Your task to perform on an android device: star an email in the gmail app Image 0: 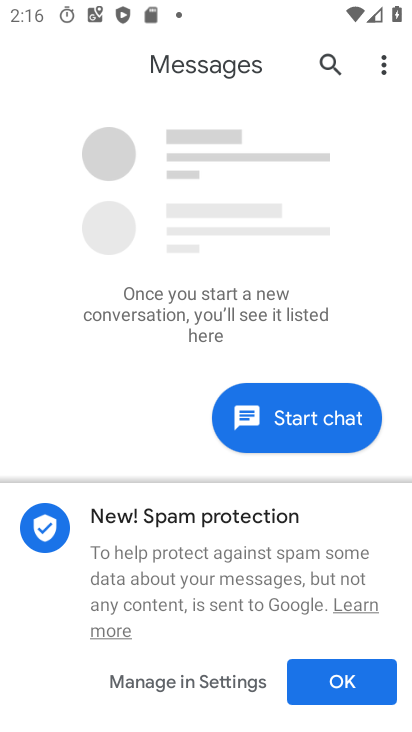
Step 0: press home button
Your task to perform on an android device: star an email in the gmail app Image 1: 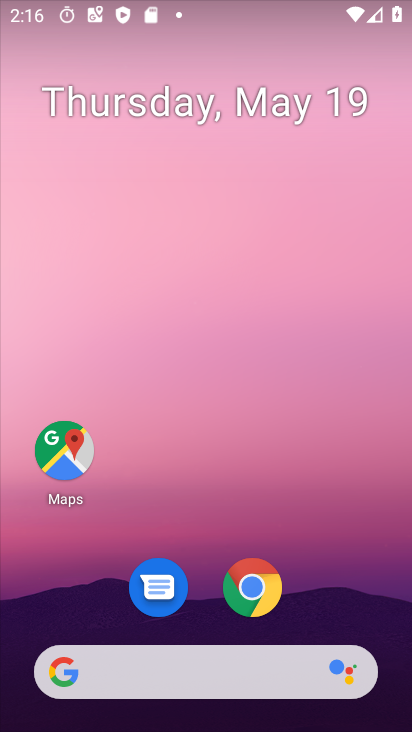
Step 1: drag from (195, 727) to (199, 126)
Your task to perform on an android device: star an email in the gmail app Image 2: 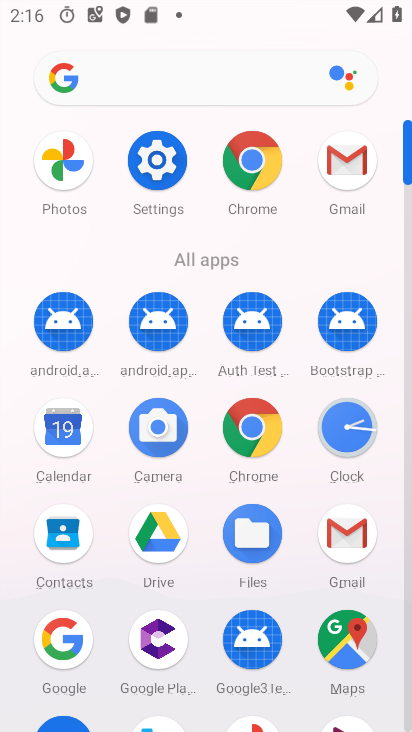
Step 2: click (355, 539)
Your task to perform on an android device: star an email in the gmail app Image 3: 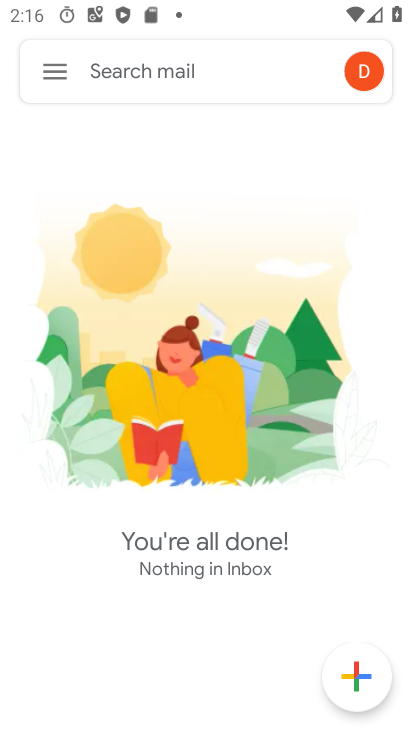
Step 3: press home button
Your task to perform on an android device: star an email in the gmail app Image 4: 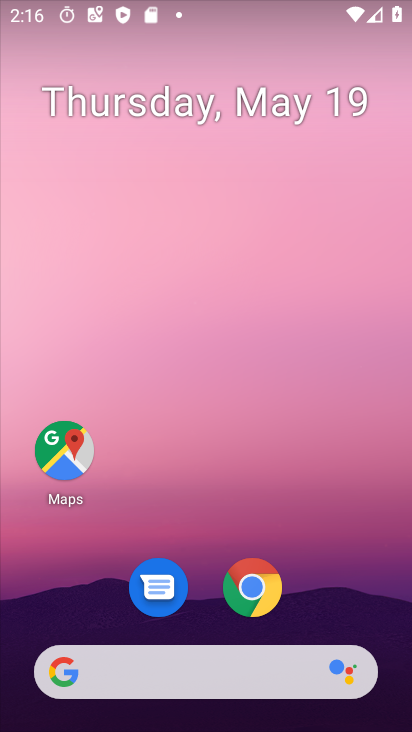
Step 4: drag from (206, 720) to (208, 90)
Your task to perform on an android device: star an email in the gmail app Image 5: 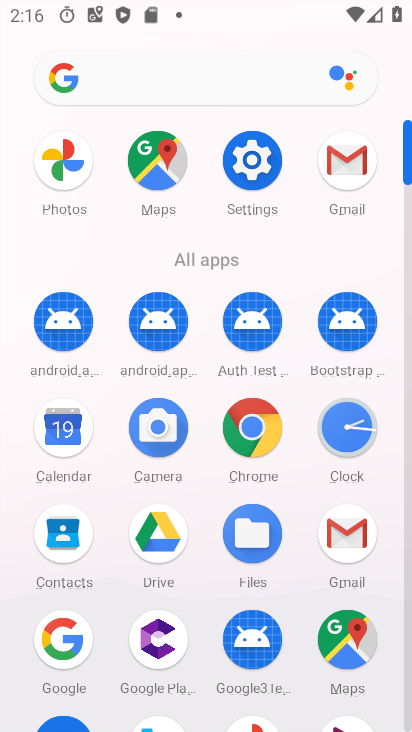
Step 5: click (341, 527)
Your task to perform on an android device: star an email in the gmail app Image 6: 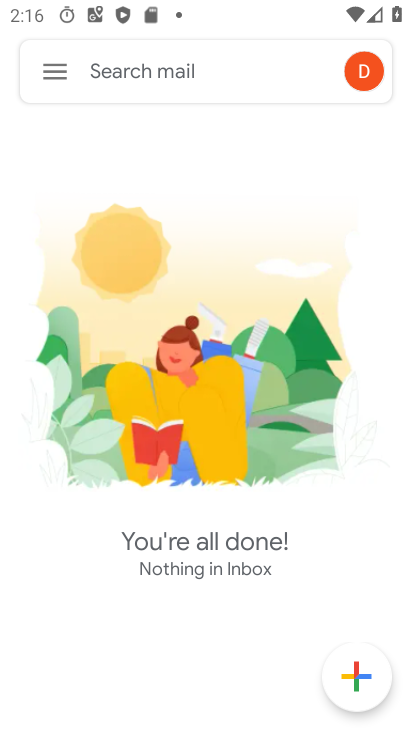
Step 6: click (56, 75)
Your task to perform on an android device: star an email in the gmail app Image 7: 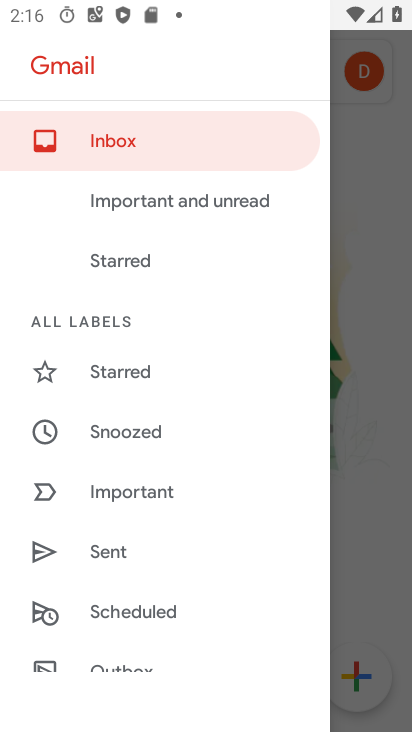
Step 7: drag from (151, 638) to (183, 424)
Your task to perform on an android device: star an email in the gmail app Image 8: 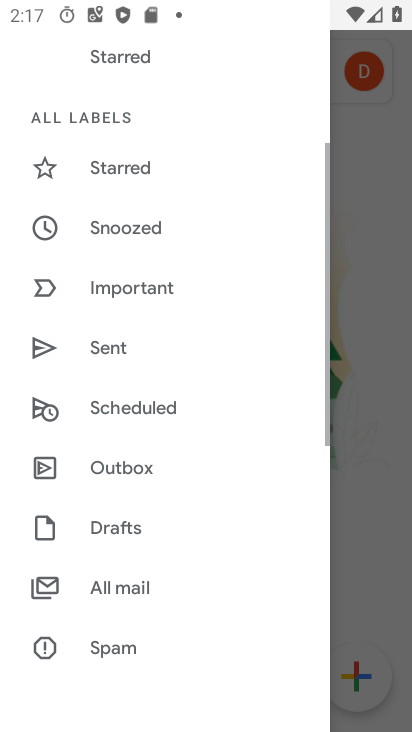
Step 8: drag from (142, 613) to (146, 387)
Your task to perform on an android device: star an email in the gmail app Image 9: 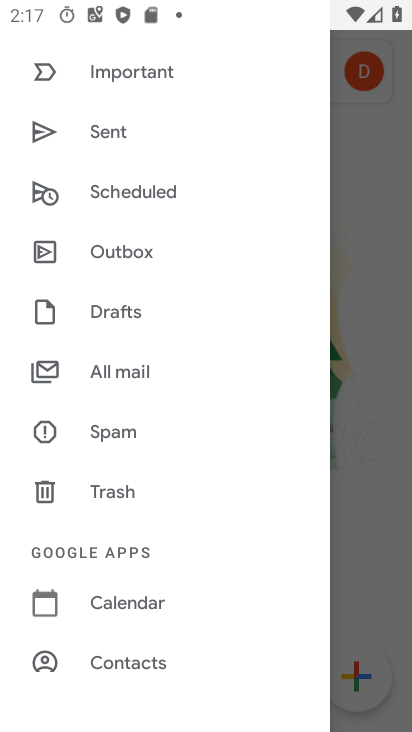
Step 9: drag from (158, 140) to (150, 230)
Your task to perform on an android device: star an email in the gmail app Image 10: 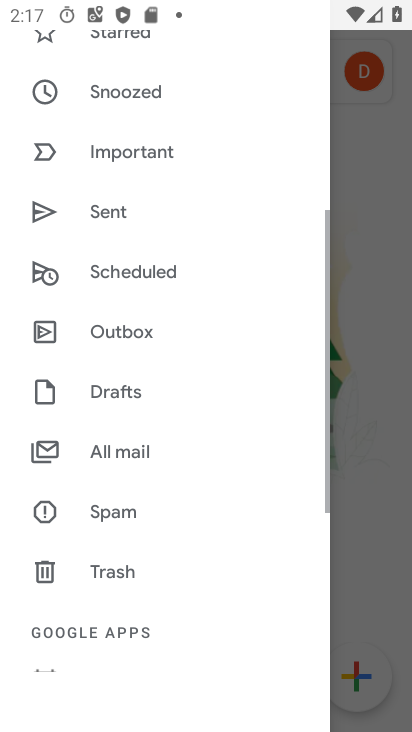
Step 10: drag from (151, 469) to (170, 561)
Your task to perform on an android device: star an email in the gmail app Image 11: 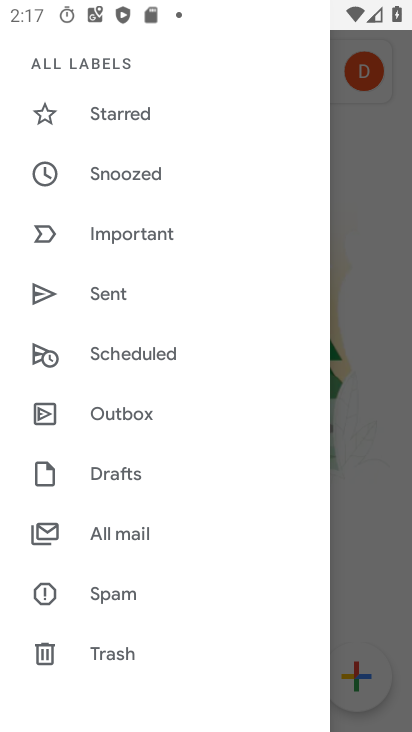
Step 11: click (164, 126)
Your task to perform on an android device: star an email in the gmail app Image 12: 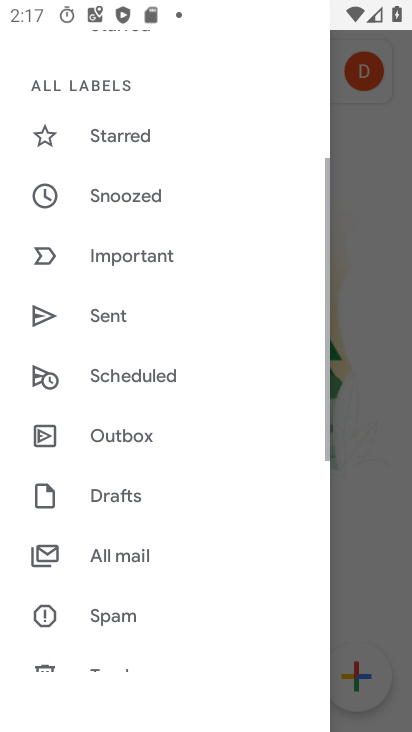
Step 12: click (159, 463)
Your task to perform on an android device: star an email in the gmail app Image 13: 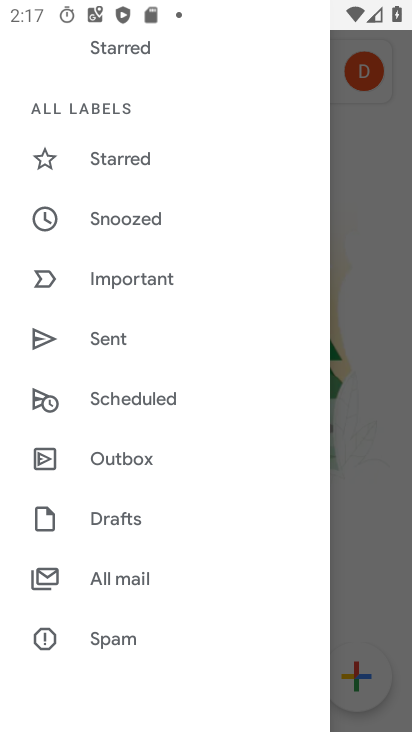
Step 13: drag from (150, 135) to (150, 292)
Your task to perform on an android device: star an email in the gmail app Image 14: 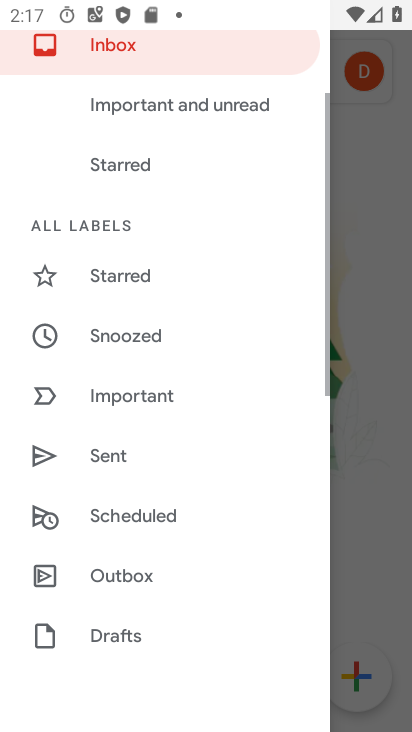
Step 14: drag from (149, 434) to (145, 483)
Your task to perform on an android device: star an email in the gmail app Image 15: 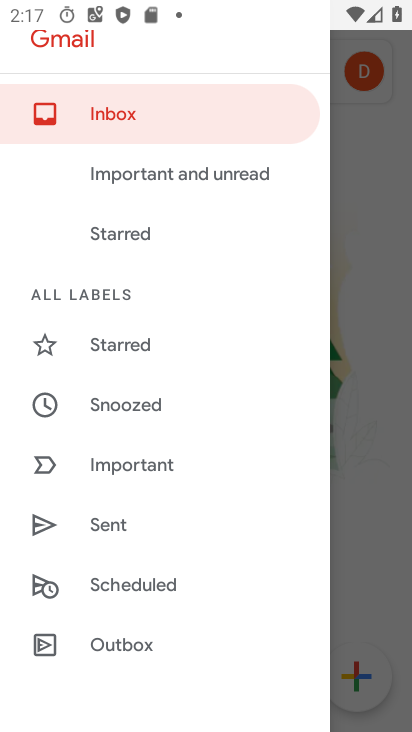
Step 15: click (125, 120)
Your task to perform on an android device: star an email in the gmail app Image 16: 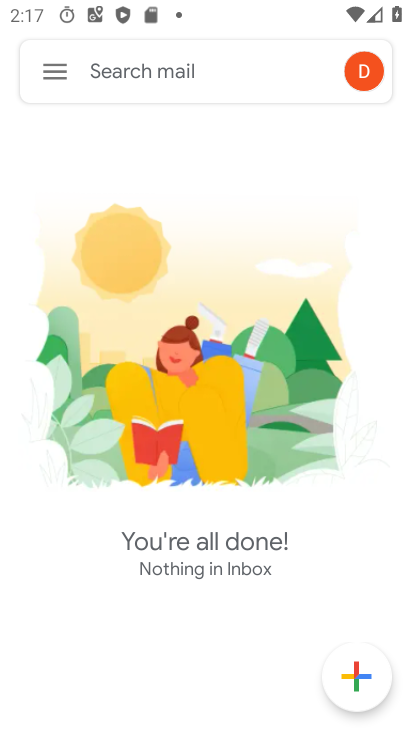
Step 16: task complete